Your task to perform on an android device: What is the news today? Image 0: 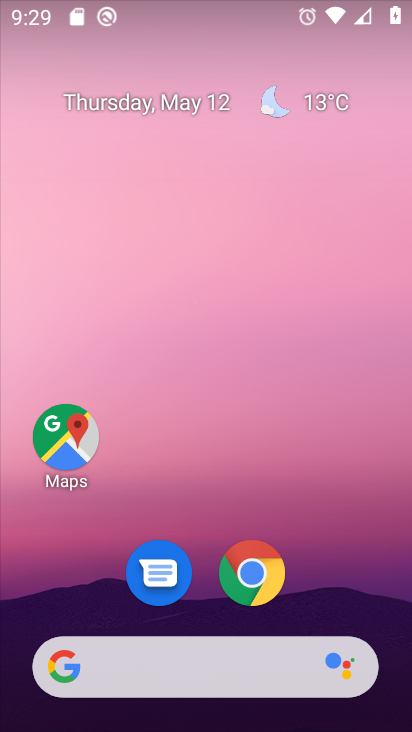
Step 0: drag from (6, 216) to (374, 276)
Your task to perform on an android device: What is the news today? Image 1: 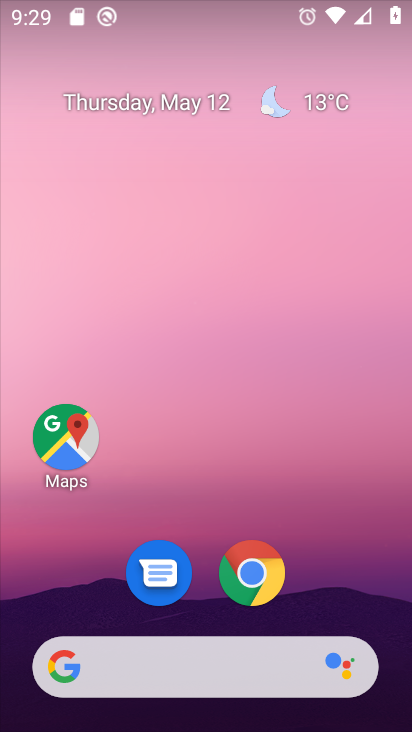
Step 1: drag from (362, 251) to (406, 250)
Your task to perform on an android device: What is the news today? Image 2: 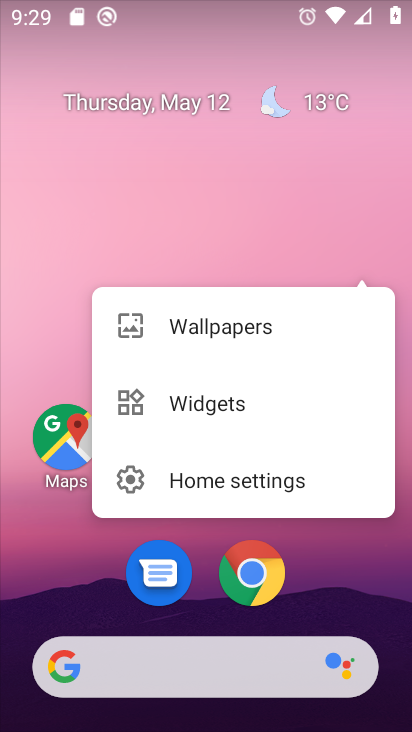
Step 2: click (164, 206)
Your task to perform on an android device: What is the news today? Image 3: 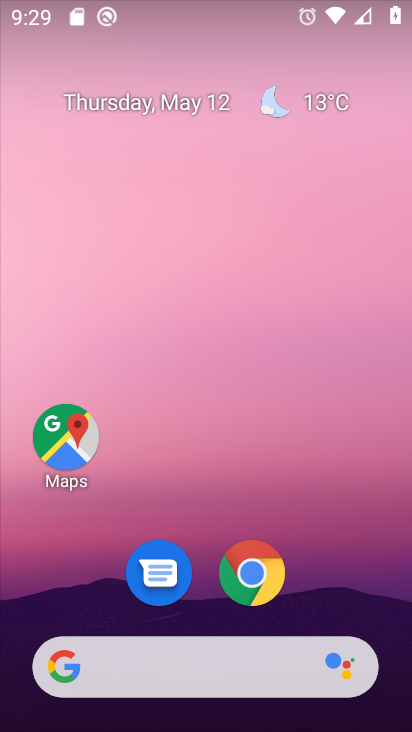
Step 3: task complete